Your task to perform on an android device: show emergency info Image 0: 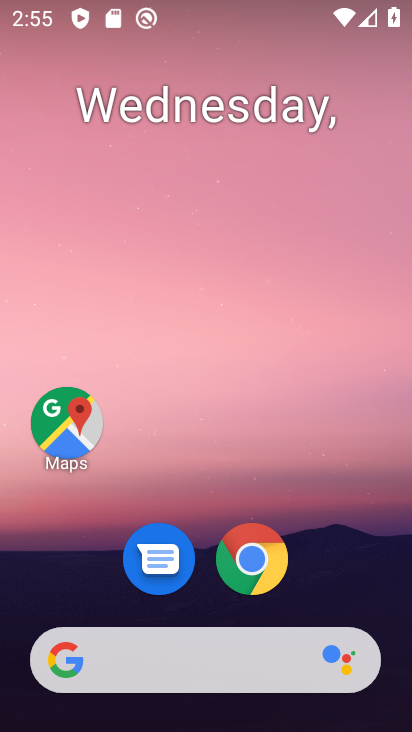
Step 0: drag from (210, 457) to (194, 5)
Your task to perform on an android device: show emergency info Image 1: 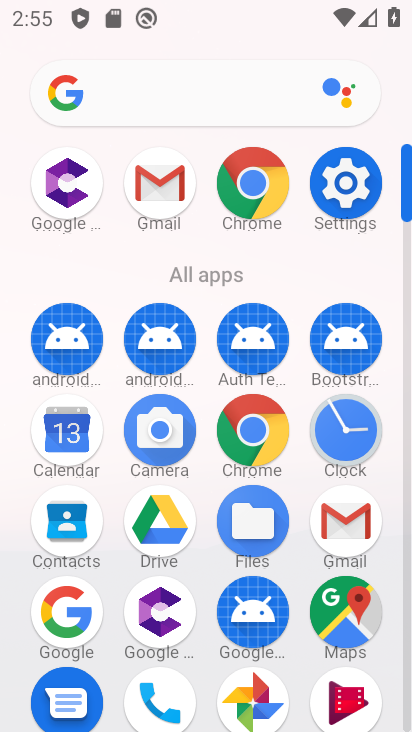
Step 1: click (350, 181)
Your task to perform on an android device: show emergency info Image 2: 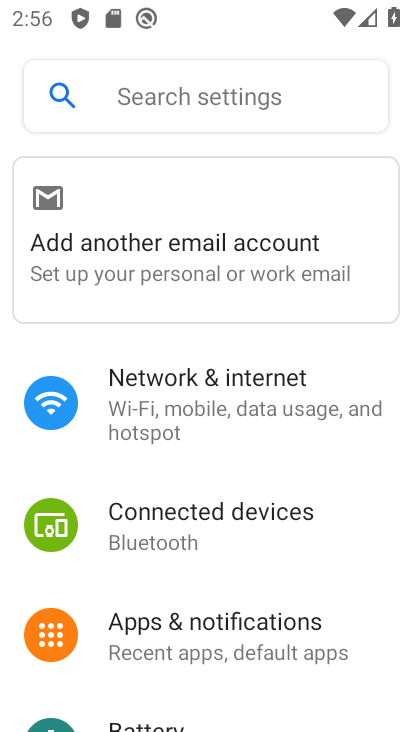
Step 2: drag from (164, 662) to (223, 182)
Your task to perform on an android device: show emergency info Image 3: 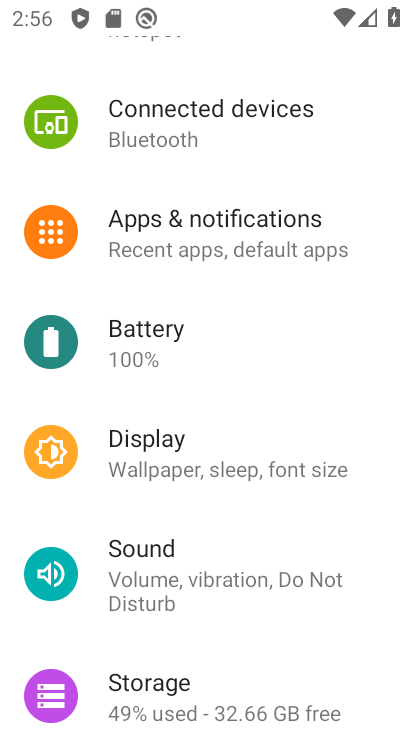
Step 3: drag from (201, 596) to (268, 114)
Your task to perform on an android device: show emergency info Image 4: 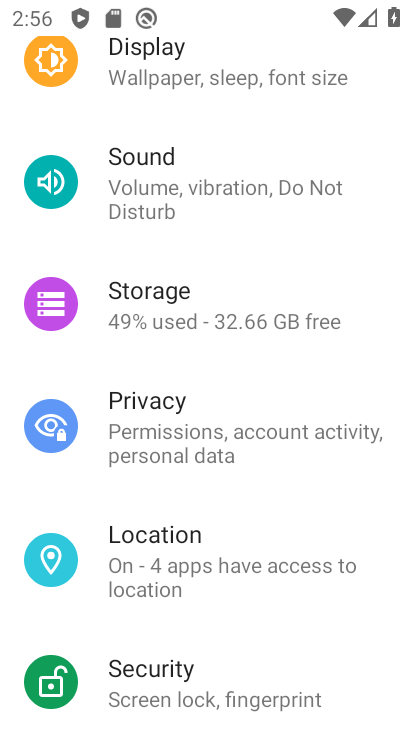
Step 4: drag from (235, 585) to (310, 98)
Your task to perform on an android device: show emergency info Image 5: 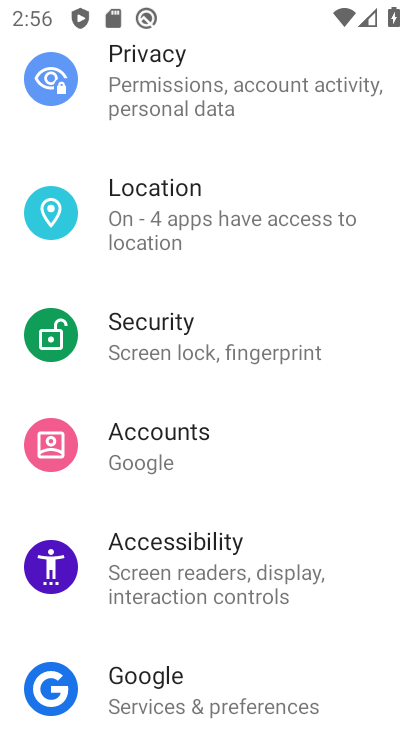
Step 5: drag from (181, 624) to (328, 40)
Your task to perform on an android device: show emergency info Image 6: 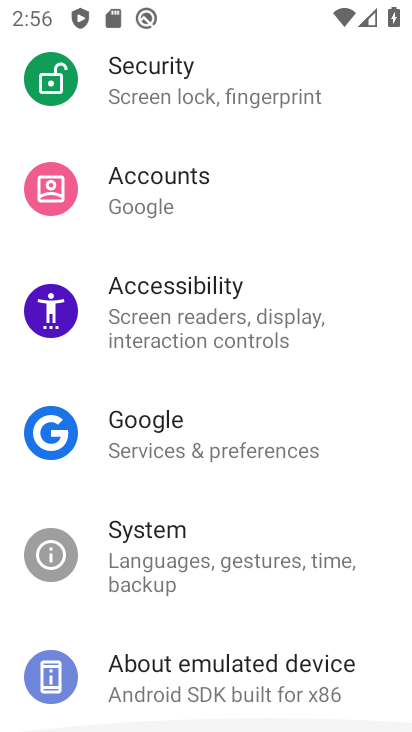
Step 6: drag from (290, 222) to (287, 729)
Your task to perform on an android device: show emergency info Image 7: 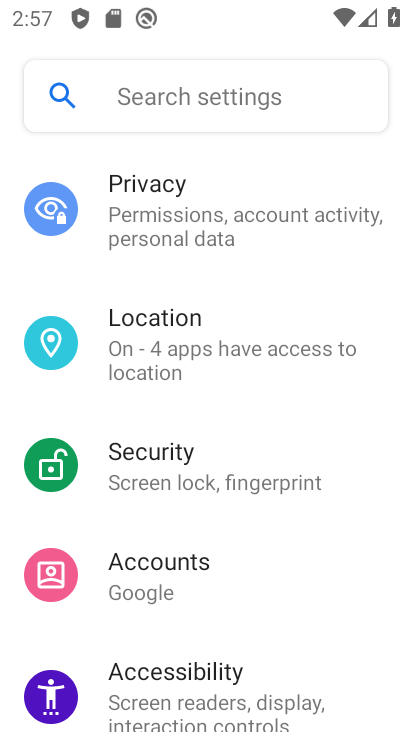
Step 7: drag from (246, 246) to (266, 726)
Your task to perform on an android device: show emergency info Image 8: 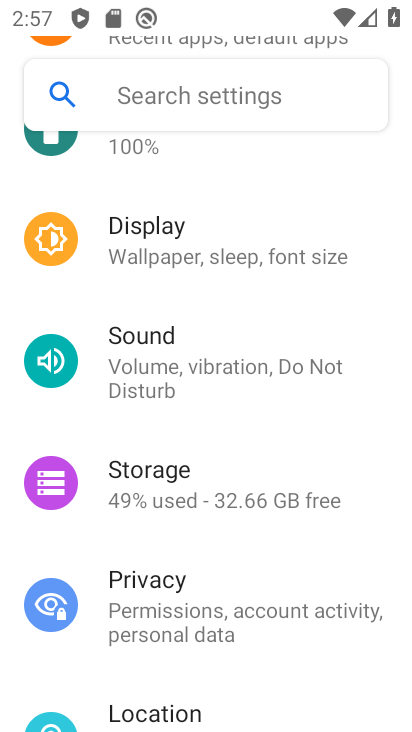
Step 8: drag from (176, 210) to (167, 708)
Your task to perform on an android device: show emergency info Image 9: 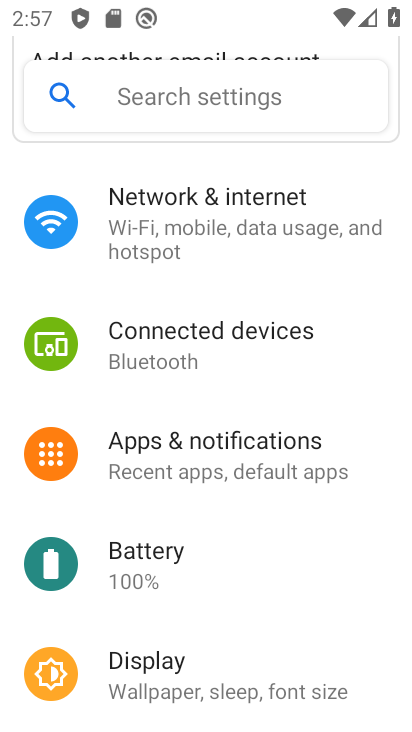
Step 9: drag from (221, 581) to (276, 14)
Your task to perform on an android device: show emergency info Image 10: 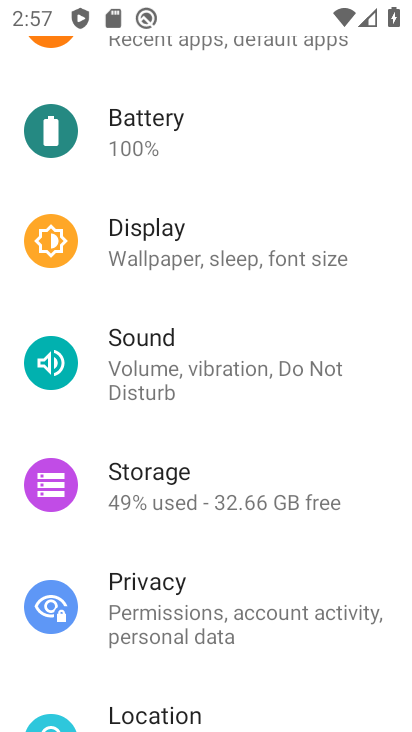
Step 10: drag from (240, 646) to (306, 8)
Your task to perform on an android device: show emergency info Image 11: 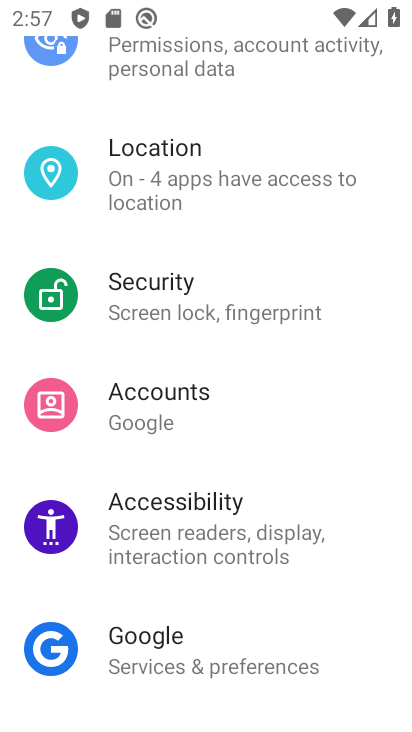
Step 11: drag from (230, 606) to (285, 5)
Your task to perform on an android device: show emergency info Image 12: 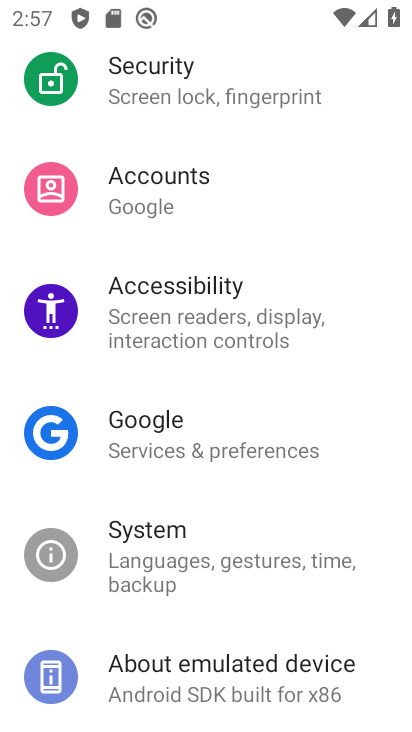
Step 12: click (182, 681)
Your task to perform on an android device: show emergency info Image 13: 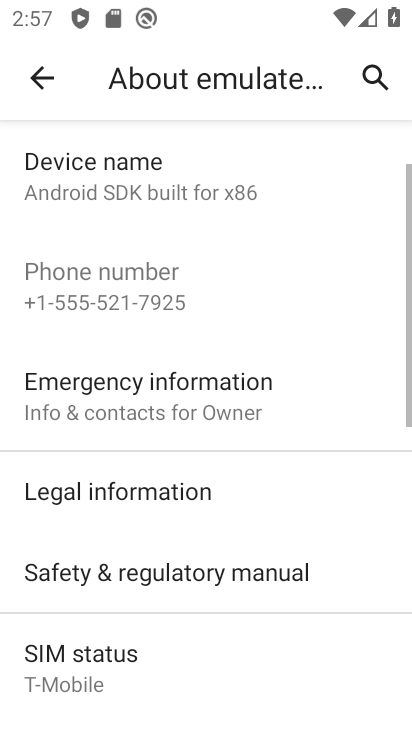
Step 13: click (131, 419)
Your task to perform on an android device: show emergency info Image 14: 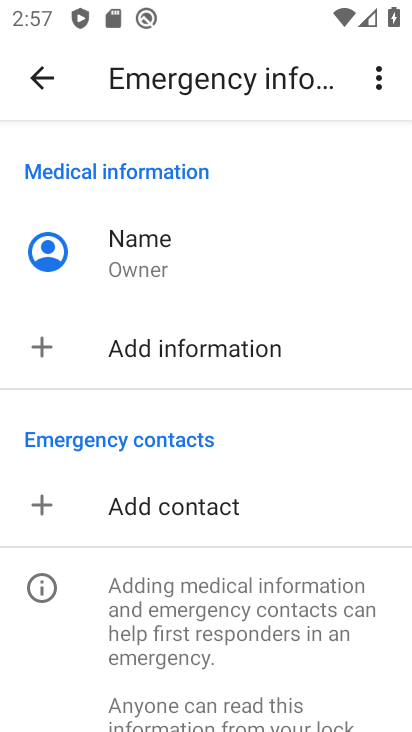
Step 14: task complete